Your task to perform on an android device: turn off priority inbox in the gmail app Image 0: 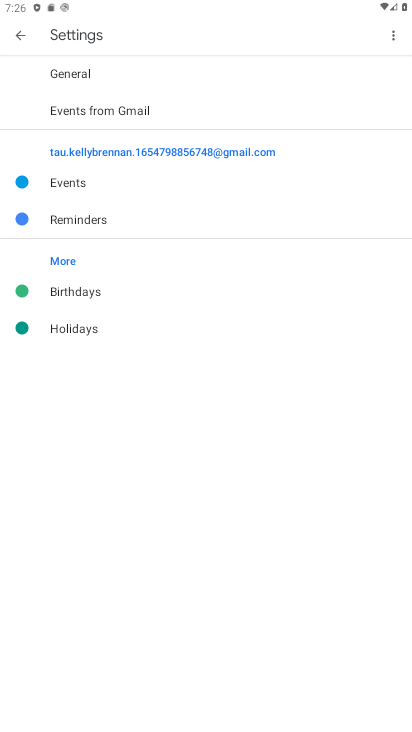
Step 0: press home button
Your task to perform on an android device: turn off priority inbox in the gmail app Image 1: 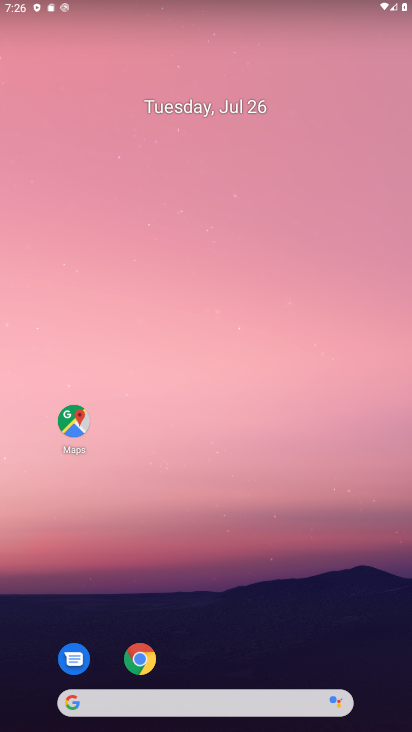
Step 1: drag from (218, 666) to (163, 44)
Your task to perform on an android device: turn off priority inbox in the gmail app Image 2: 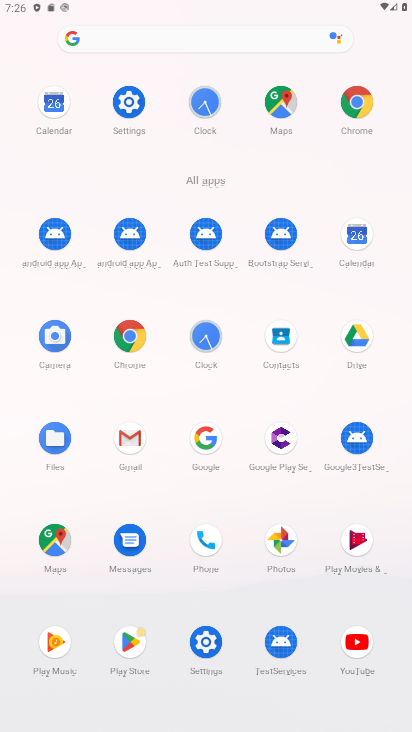
Step 2: click (125, 447)
Your task to perform on an android device: turn off priority inbox in the gmail app Image 3: 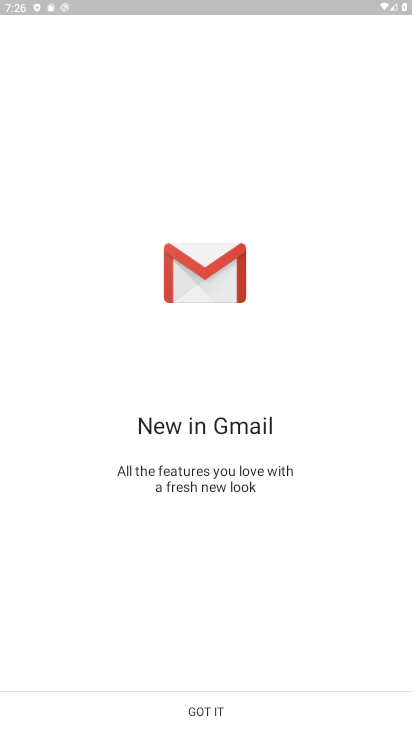
Step 3: click (199, 719)
Your task to perform on an android device: turn off priority inbox in the gmail app Image 4: 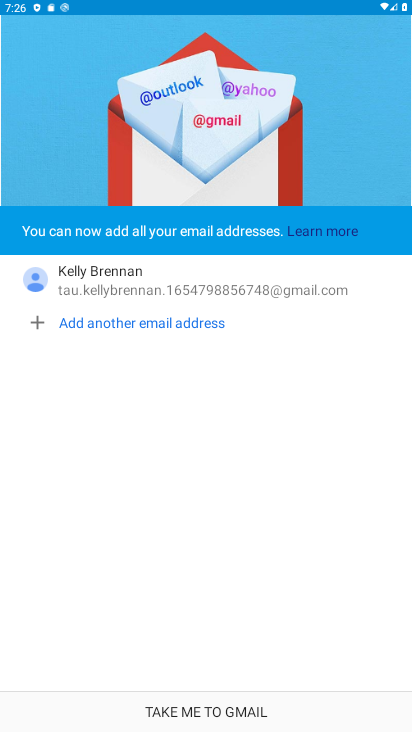
Step 4: click (199, 719)
Your task to perform on an android device: turn off priority inbox in the gmail app Image 5: 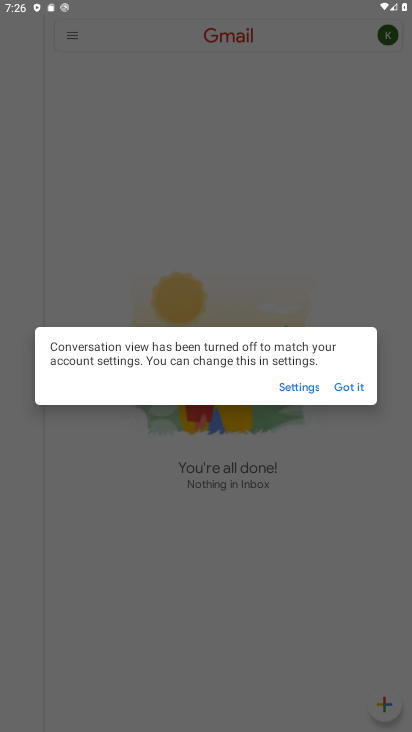
Step 5: click (342, 384)
Your task to perform on an android device: turn off priority inbox in the gmail app Image 6: 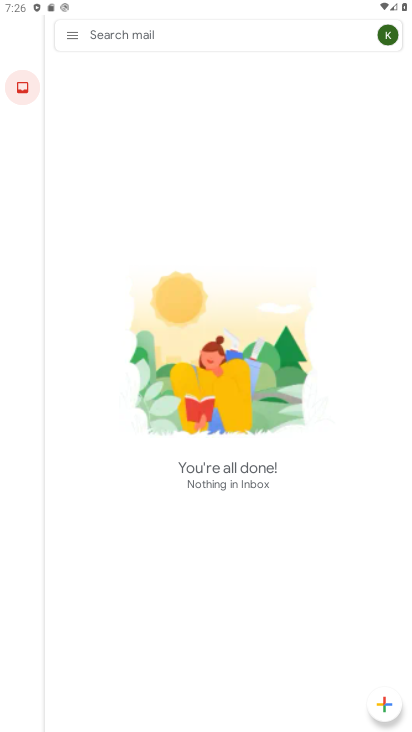
Step 6: click (73, 43)
Your task to perform on an android device: turn off priority inbox in the gmail app Image 7: 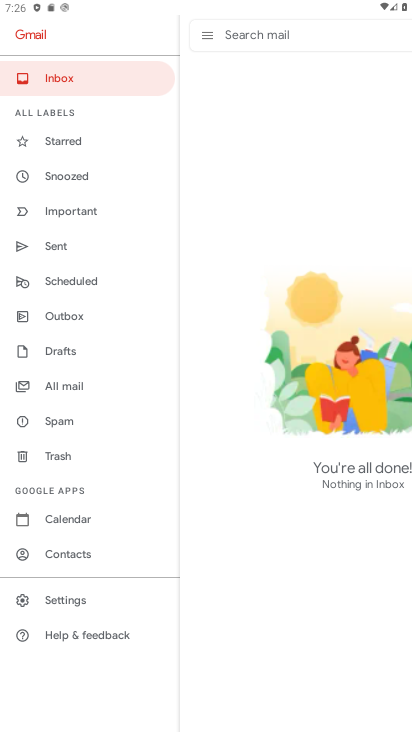
Step 7: click (66, 594)
Your task to perform on an android device: turn off priority inbox in the gmail app Image 8: 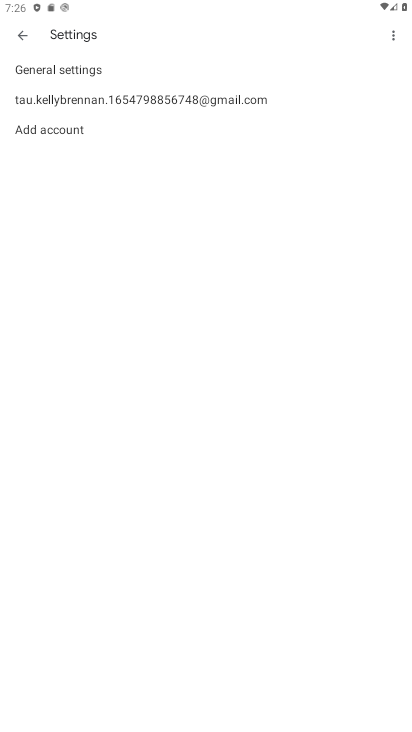
Step 8: click (44, 89)
Your task to perform on an android device: turn off priority inbox in the gmail app Image 9: 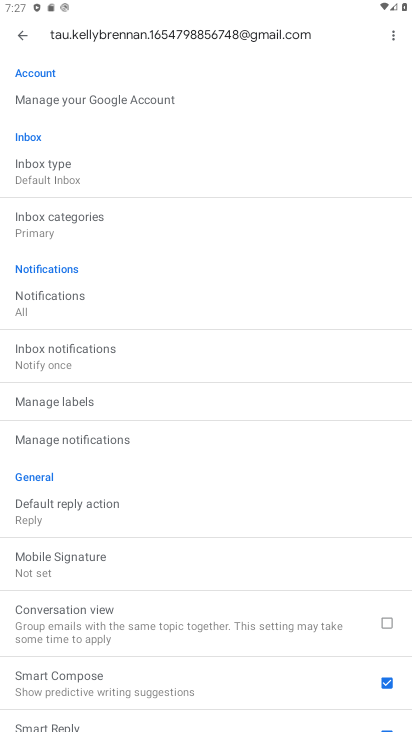
Step 9: click (42, 162)
Your task to perform on an android device: turn off priority inbox in the gmail app Image 10: 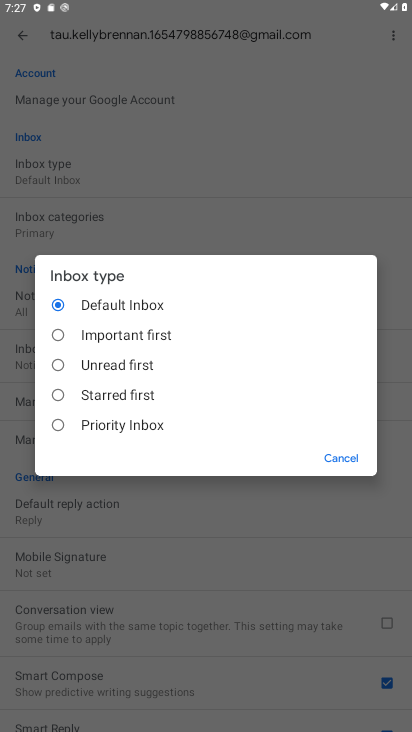
Step 10: click (104, 393)
Your task to perform on an android device: turn off priority inbox in the gmail app Image 11: 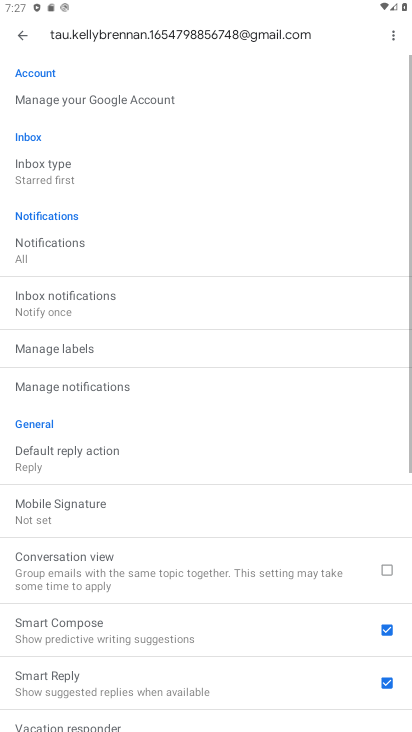
Step 11: task complete